Your task to perform on an android device: set the timer Image 0: 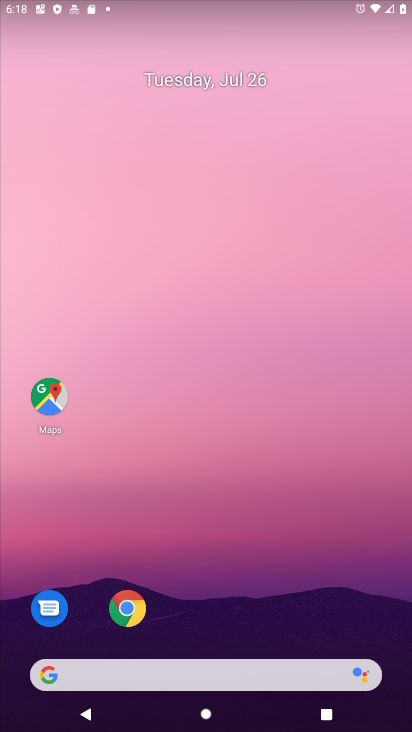
Step 0: press home button
Your task to perform on an android device: set the timer Image 1: 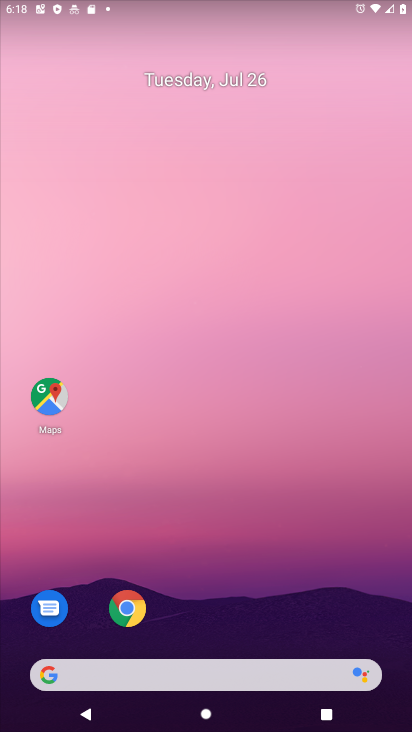
Step 1: drag from (231, 497) to (355, 12)
Your task to perform on an android device: set the timer Image 2: 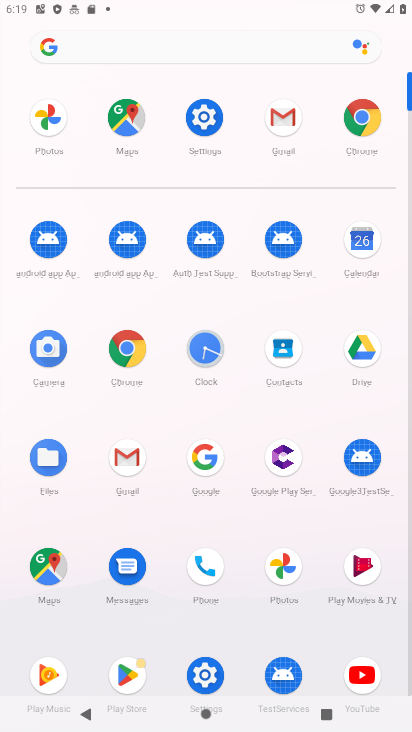
Step 2: click (210, 358)
Your task to perform on an android device: set the timer Image 3: 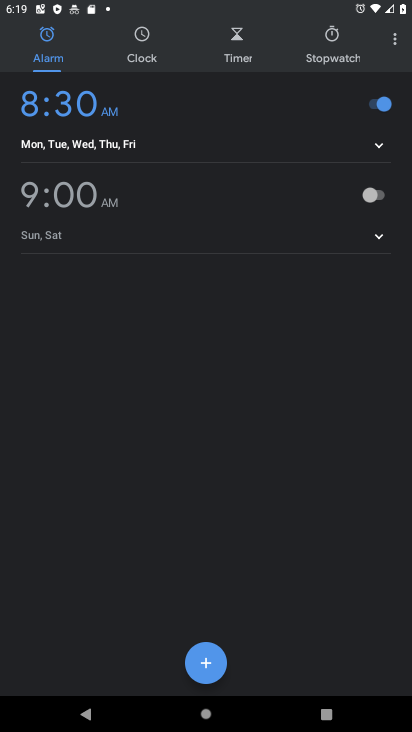
Step 3: click (235, 52)
Your task to perform on an android device: set the timer Image 4: 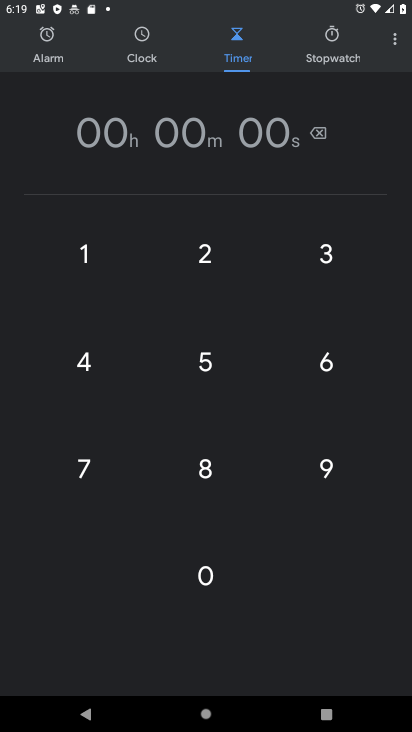
Step 4: click (217, 262)
Your task to perform on an android device: set the timer Image 5: 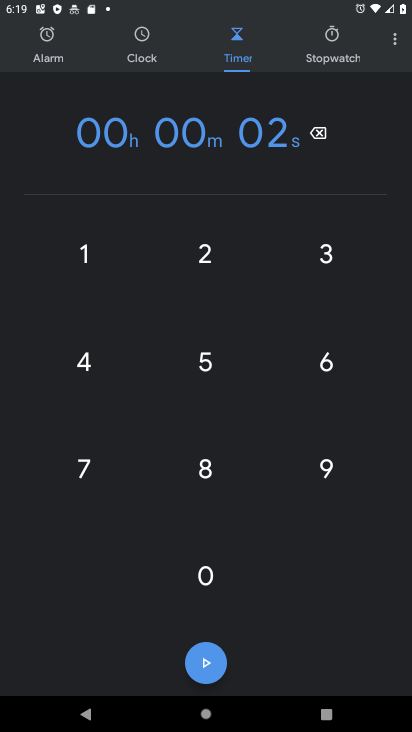
Step 5: click (110, 369)
Your task to perform on an android device: set the timer Image 6: 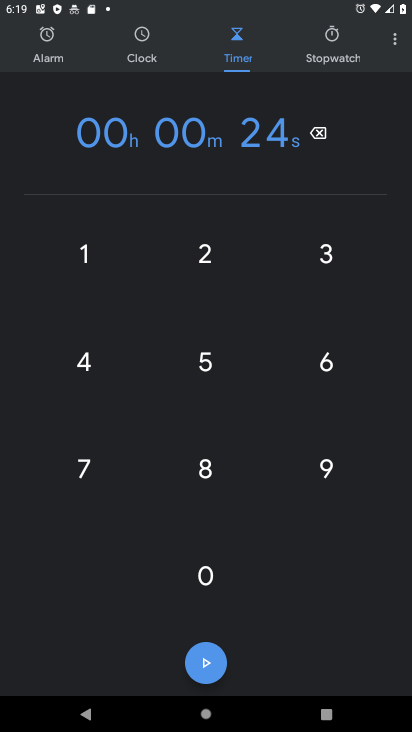
Step 6: click (81, 271)
Your task to perform on an android device: set the timer Image 7: 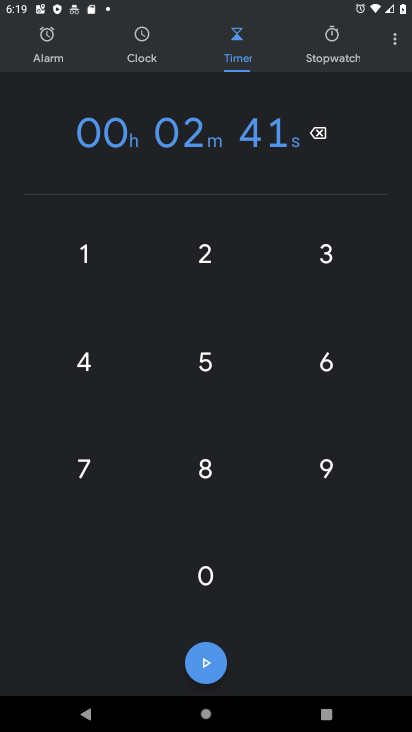
Step 7: click (204, 371)
Your task to perform on an android device: set the timer Image 8: 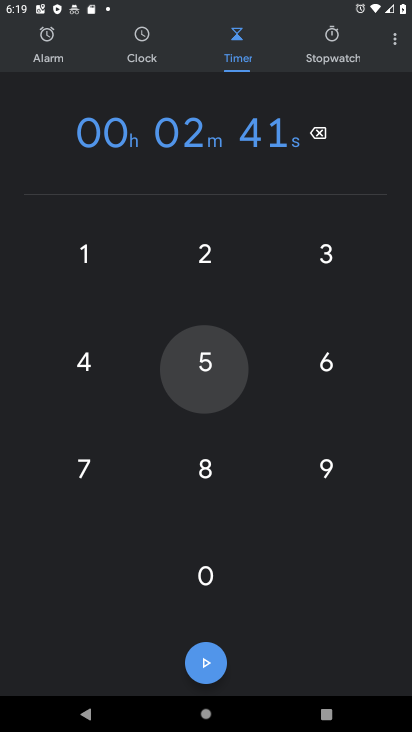
Step 8: click (204, 371)
Your task to perform on an android device: set the timer Image 9: 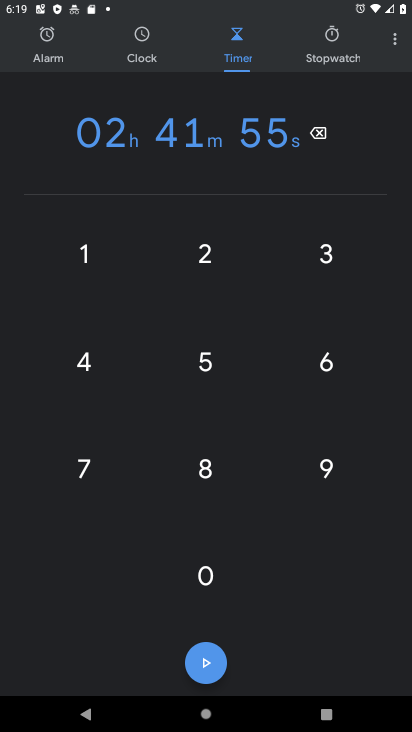
Step 9: click (203, 478)
Your task to perform on an android device: set the timer Image 10: 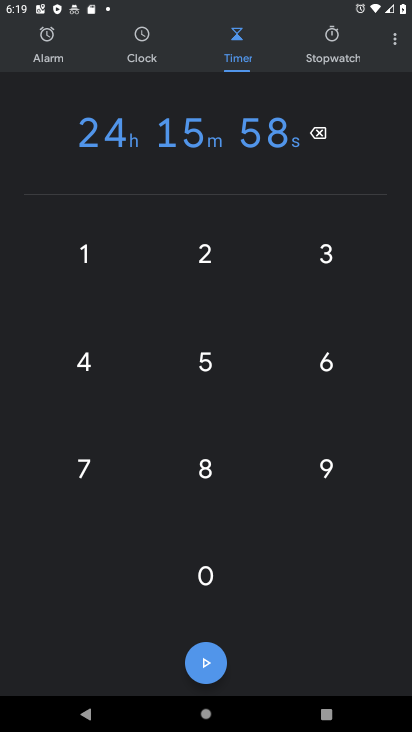
Step 10: click (208, 673)
Your task to perform on an android device: set the timer Image 11: 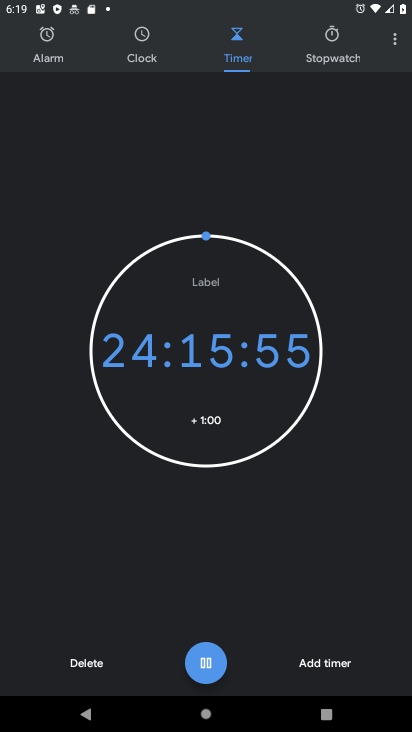
Step 11: task complete